Your task to perform on an android device: Open my contact list Image 0: 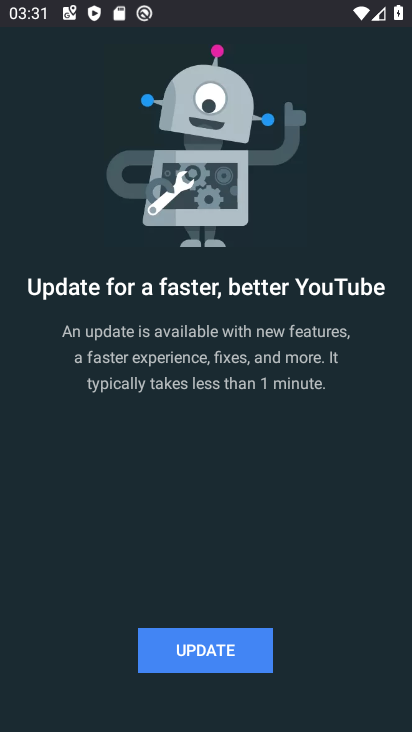
Step 0: press home button
Your task to perform on an android device: Open my contact list Image 1: 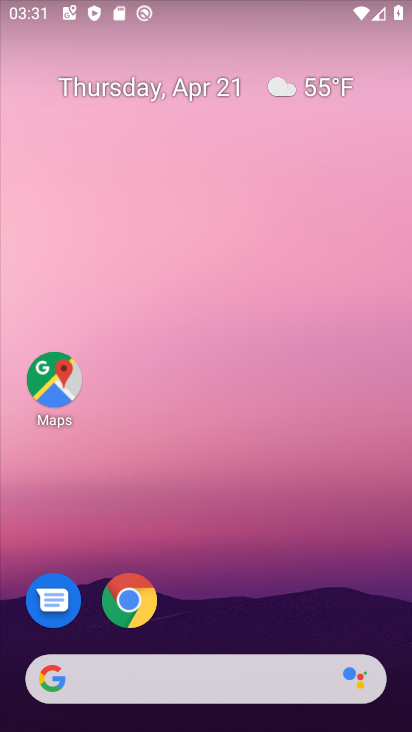
Step 1: drag from (285, 602) to (394, 60)
Your task to perform on an android device: Open my contact list Image 2: 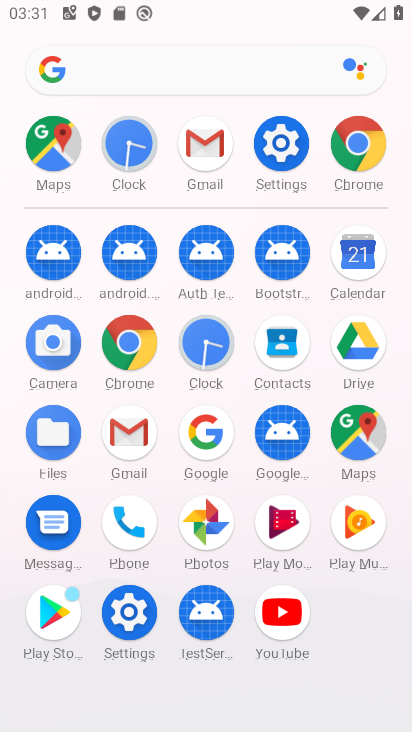
Step 2: click (295, 349)
Your task to perform on an android device: Open my contact list Image 3: 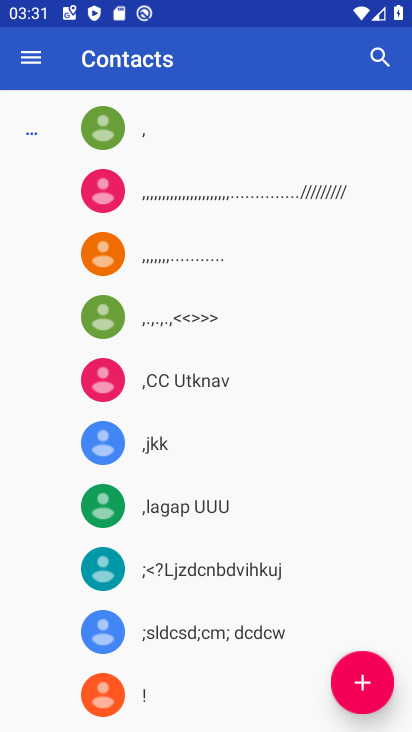
Step 3: task complete